Your task to perform on an android device: turn off translation in the chrome app Image 0: 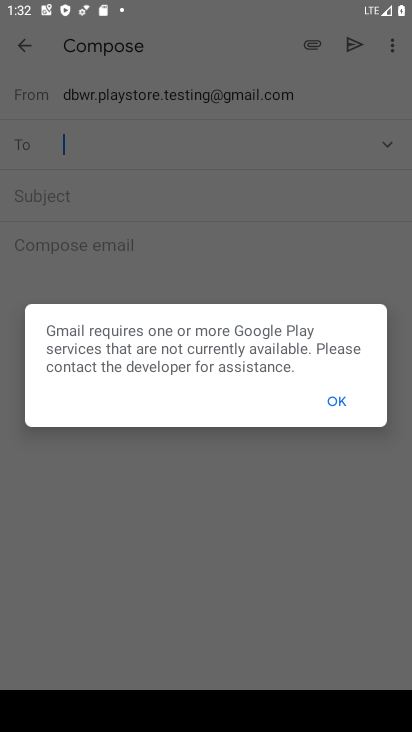
Step 0: press home button
Your task to perform on an android device: turn off translation in the chrome app Image 1: 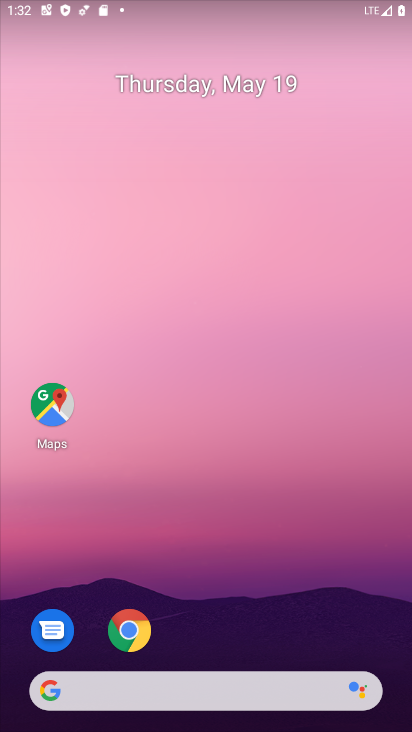
Step 1: click (134, 628)
Your task to perform on an android device: turn off translation in the chrome app Image 2: 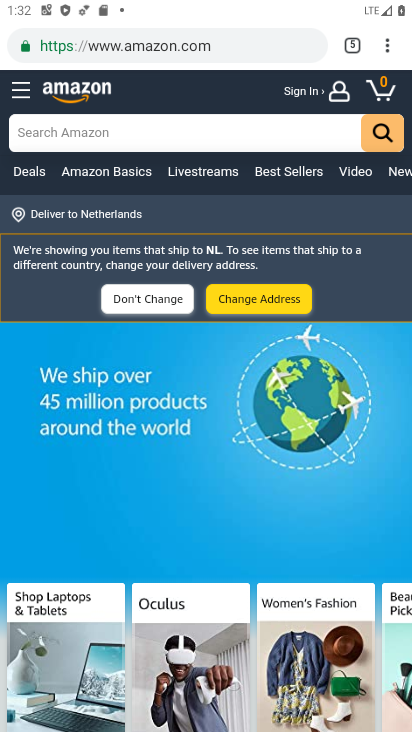
Step 2: click (385, 39)
Your task to perform on an android device: turn off translation in the chrome app Image 3: 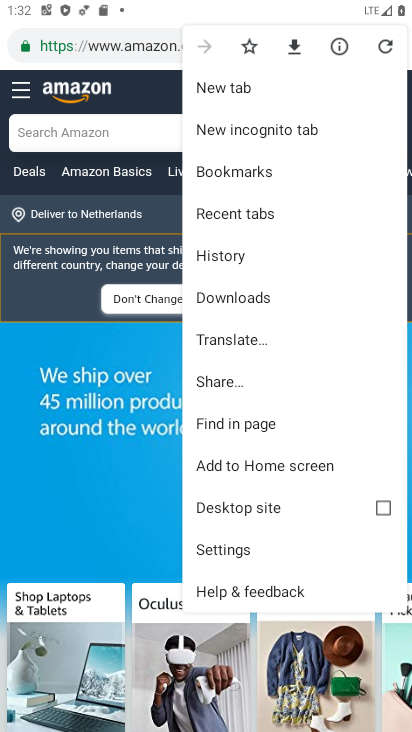
Step 3: click (247, 538)
Your task to perform on an android device: turn off translation in the chrome app Image 4: 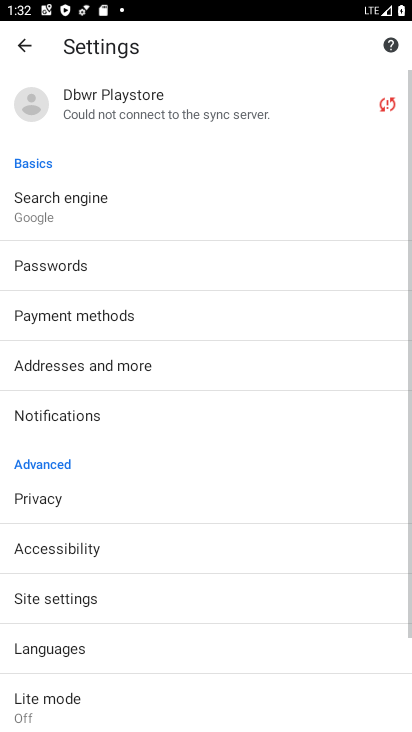
Step 4: click (55, 658)
Your task to perform on an android device: turn off translation in the chrome app Image 5: 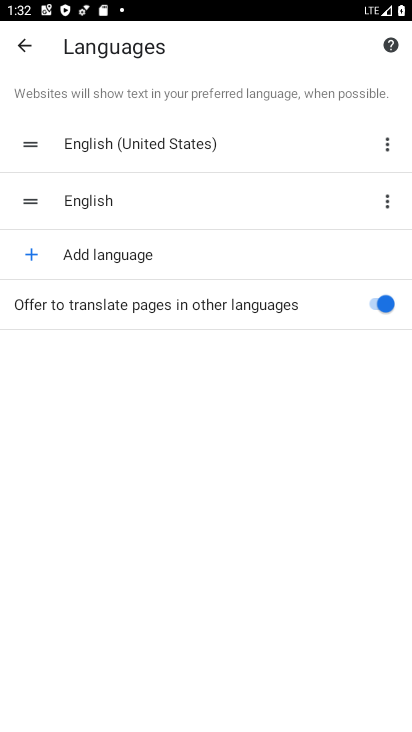
Step 5: click (376, 297)
Your task to perform on an android device: turn off translation in the chrome app Image 6: 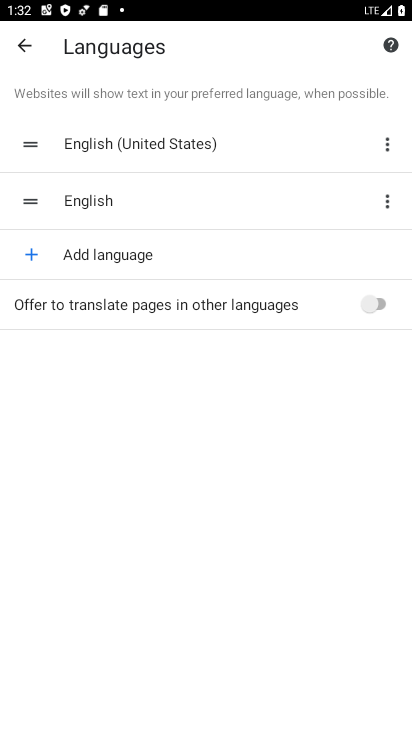
Step 6: task complete